Your task to perform on an android device: Show me recent news Image 0: 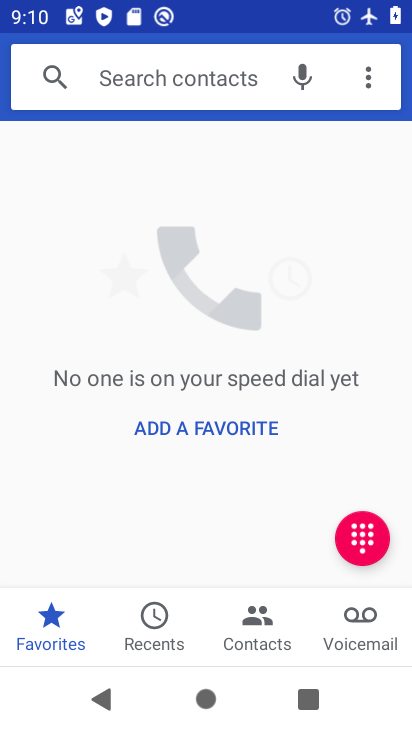
Step 0: press home button
Your task to perform on an android device: Show me recent news Image 1: 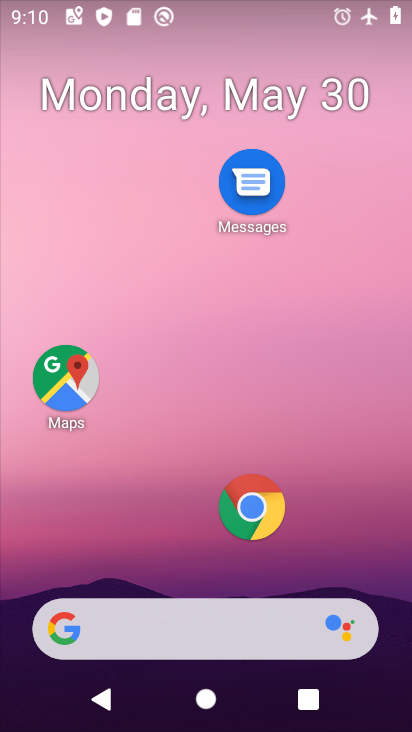
Step 1: drag from (147, 561) to (282, 4)
Your task to perform on an android device: Show me recent news Image 2: 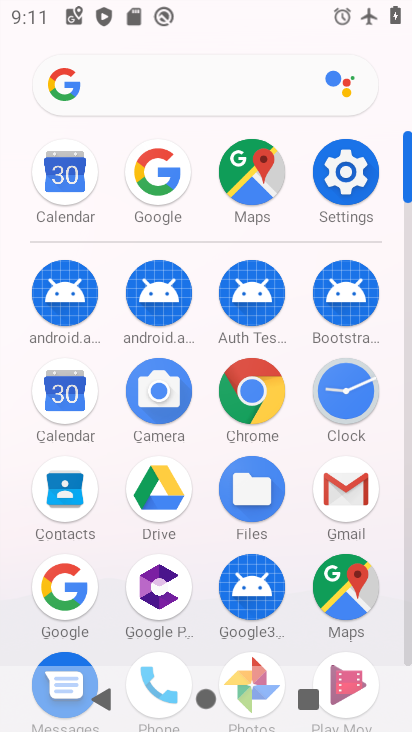
Step 2: drag from (189, 605) to (286, 440)
Your task to perform on an android device: Show me recent news Image 3: 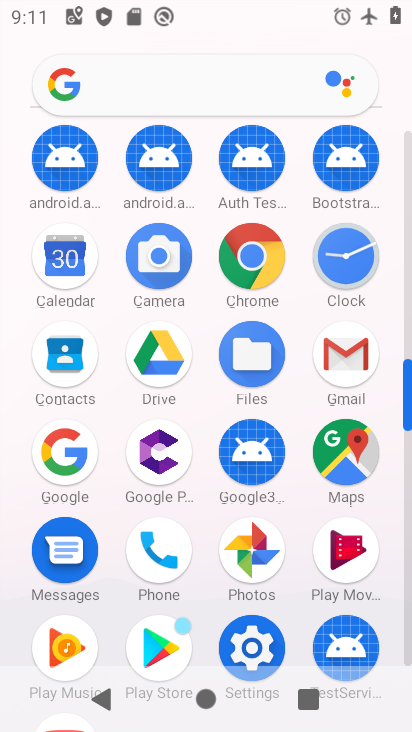
Step 3: click (83, 474)
Your task to perform on an android device: Show me recent news Image 4: 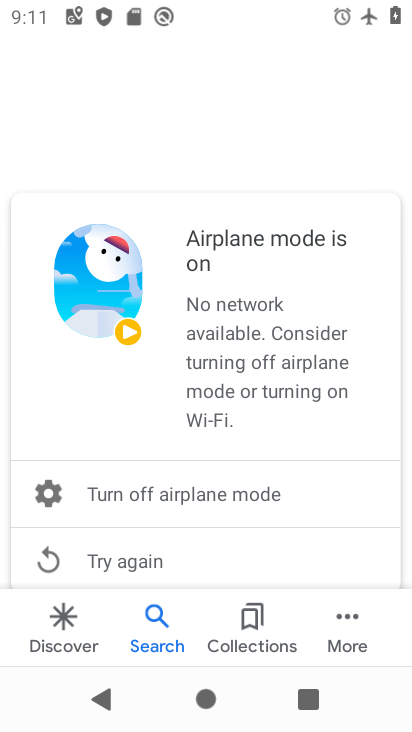
Step 4: press back button
Your task to perform on an android device: Show me recent news Image 5: 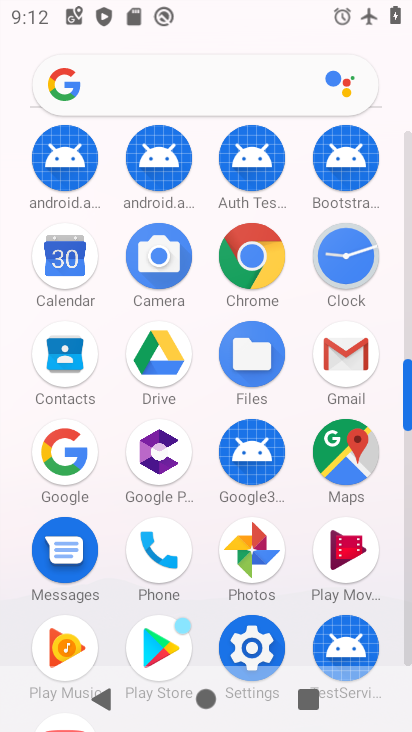
Step 5: click (57, 462)
Your task to perform on an android device: Show me recent news Image 6: 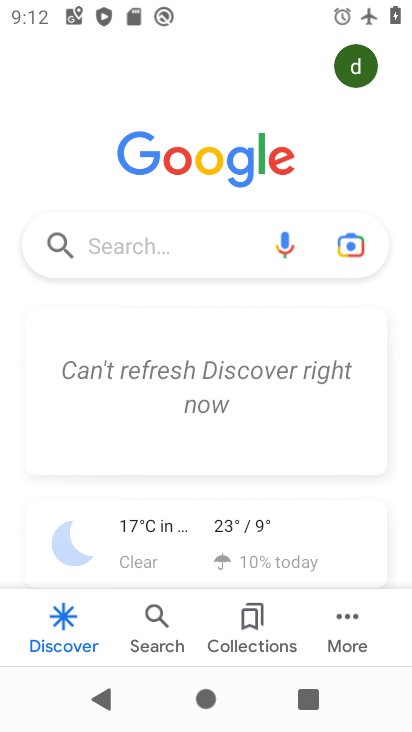
Step 6: click (72, 282)
Your task to perform on an android device: Show me recent news Image 7: 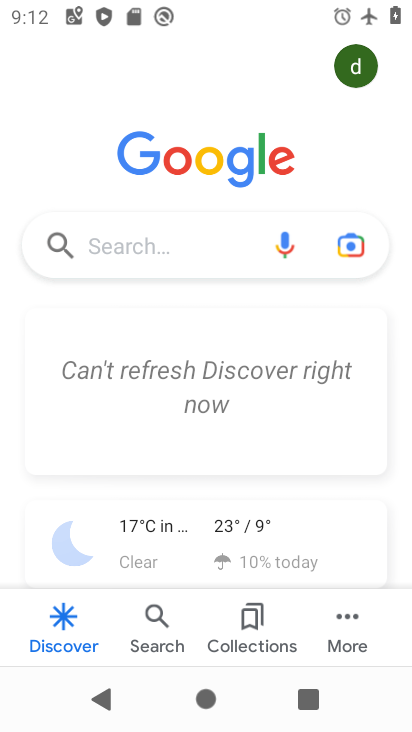
Step 7: press back button
Your task to perform on an android device: Show me recent news Image 8: 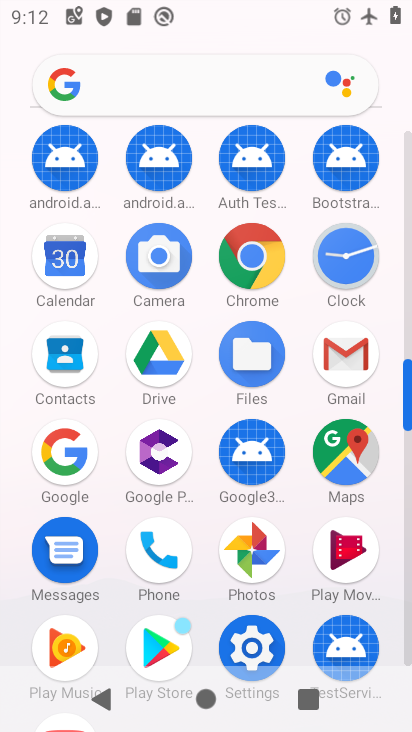
Step 8: click (227, 641)
Your task to perform on an android device: Show me recent news Image 9: 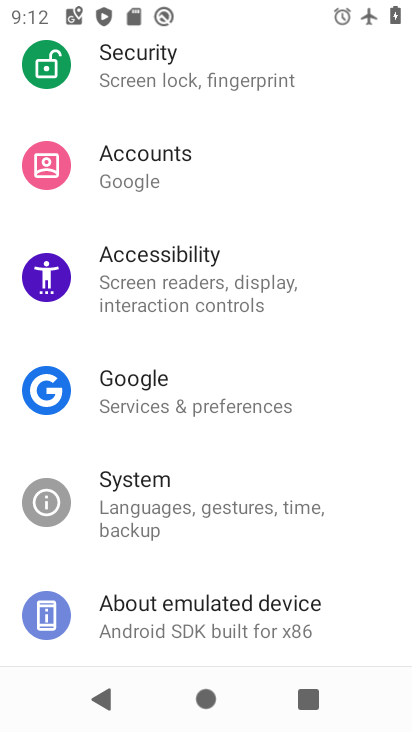
Step 9: drag from (167, 219) to (155, 661)
Your task to perform on an android device: Show me recent news Image 10: 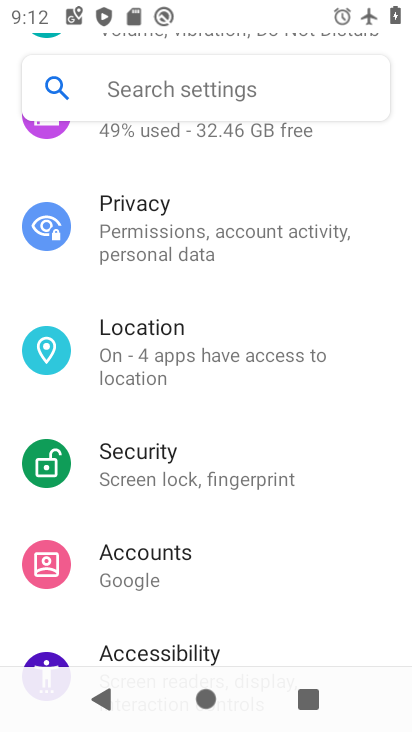
Step 10: drag from (176, 335) to (140, 690)
Your task to perform on an android device: Show me recent news Image 11: 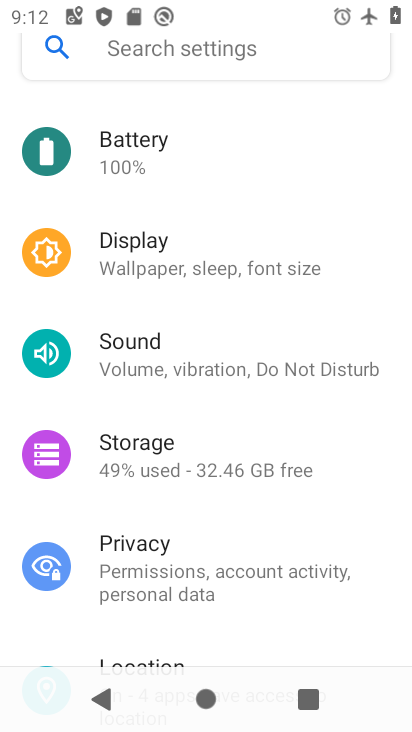
Step 11: drag from (174, 405) to (141, 699)
Your task to perform on an android device: Show me recent news Image 12: 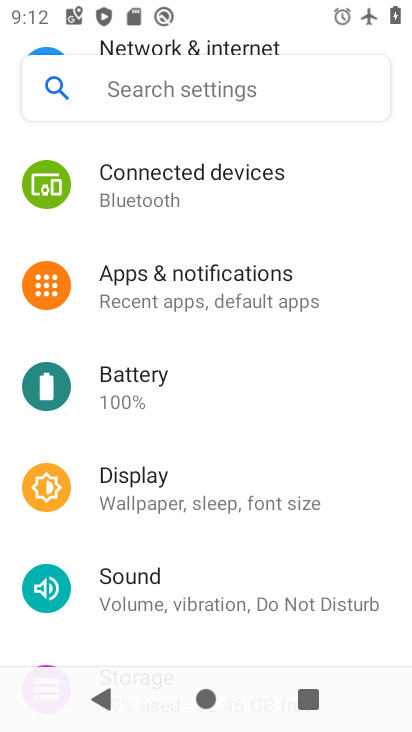
Step 12: drag from (176, 320) to (130, 582)
Your task to perform on an android device: Show me recent news Image 13: 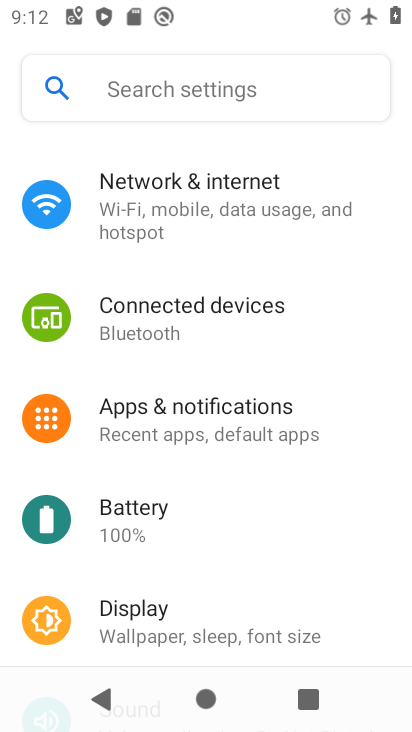
Step 13: click (128, 164)
Your task to perform on an android device: Show me recent news Image 14: 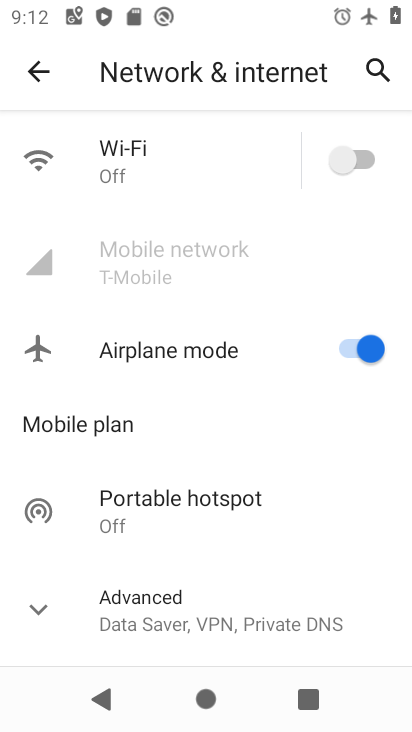
Step 14: click (341, 337)
Your task to perform on an android device: Show me recent news Image 15: 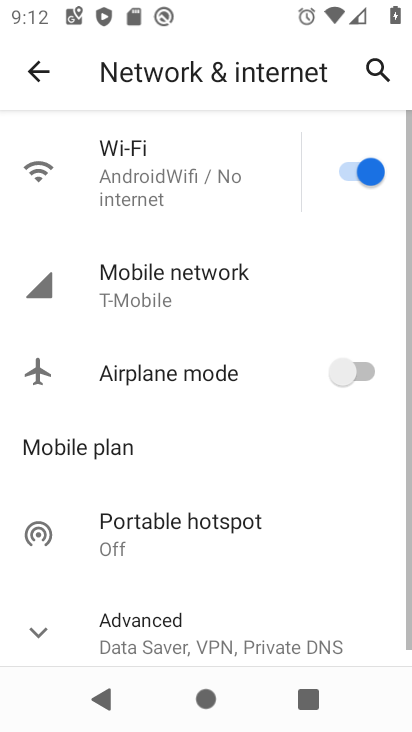
Step 15: press back button
Your task to perform on an android device: Show me recent news Image 16: 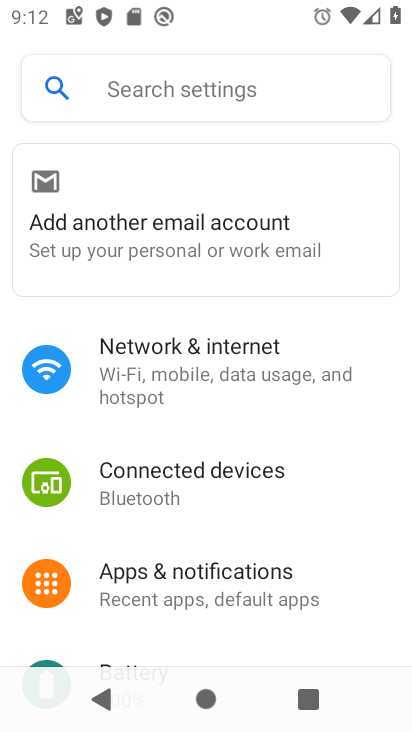
Step 16: press back button
Your task to perform on an android device: Show me recent news Image 17: 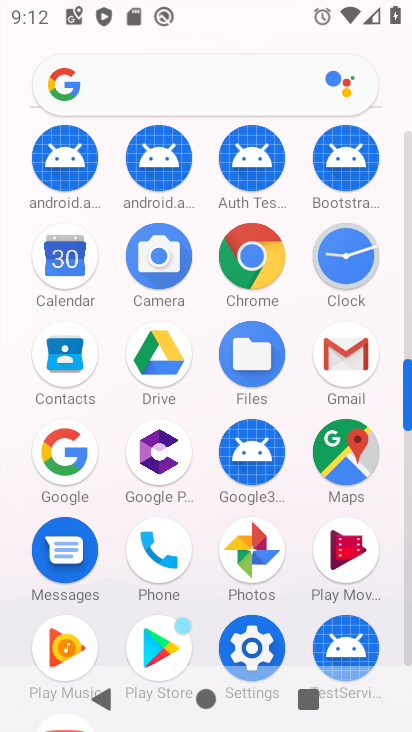
Step 17: click (55, 468)
Your task to perform on an android device: Show me recent news Image 18: 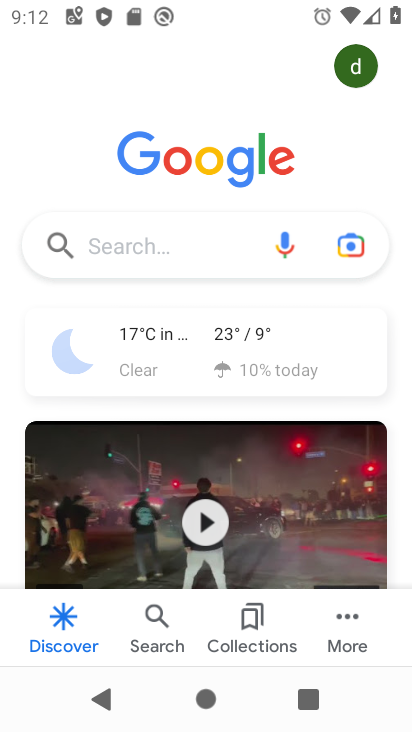
Step 18: click (211, 247)
Your task to perform on an android device: Show me recent news Image 19: 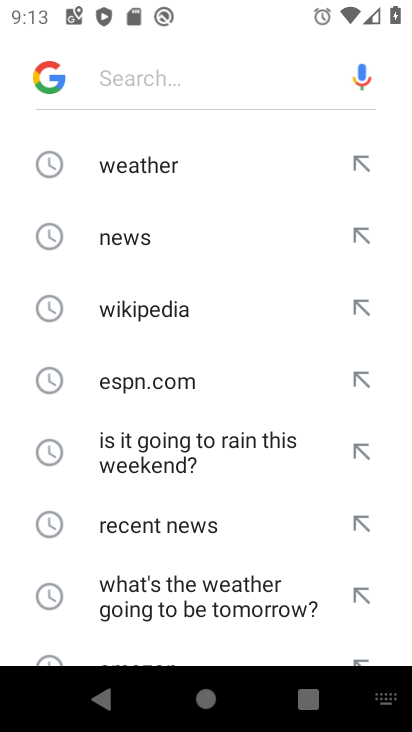
Step 19: type "recent news"
Your task to perform on an android device: Show me recent news Image 20: 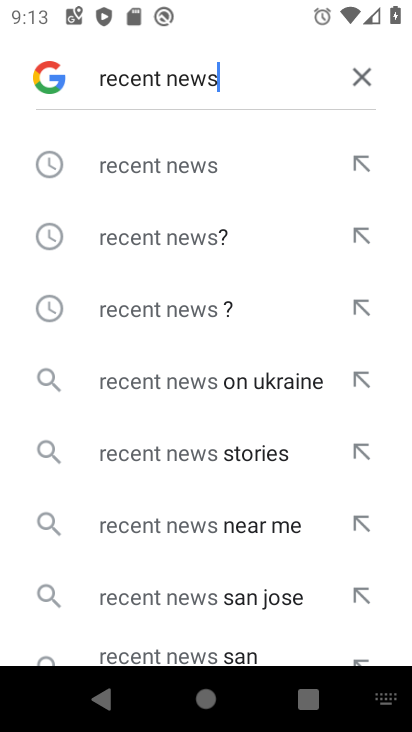
Step 20: click (196, 161)
Your task to perform on an android device: Show me recent news Image 21: 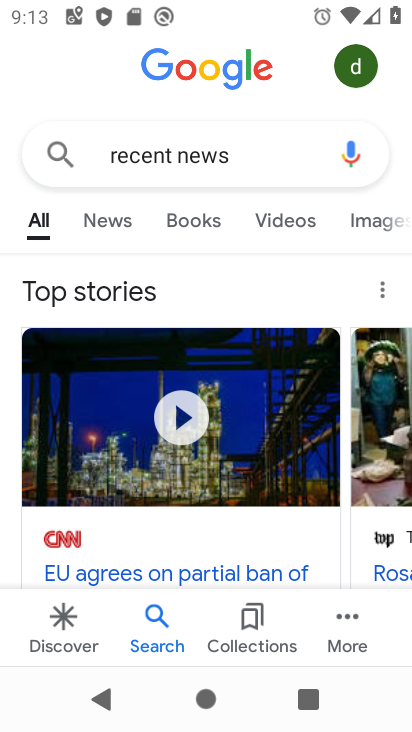
Step 21: task complete